Your task to perform on an android device: open app "Reddit" Image 0: 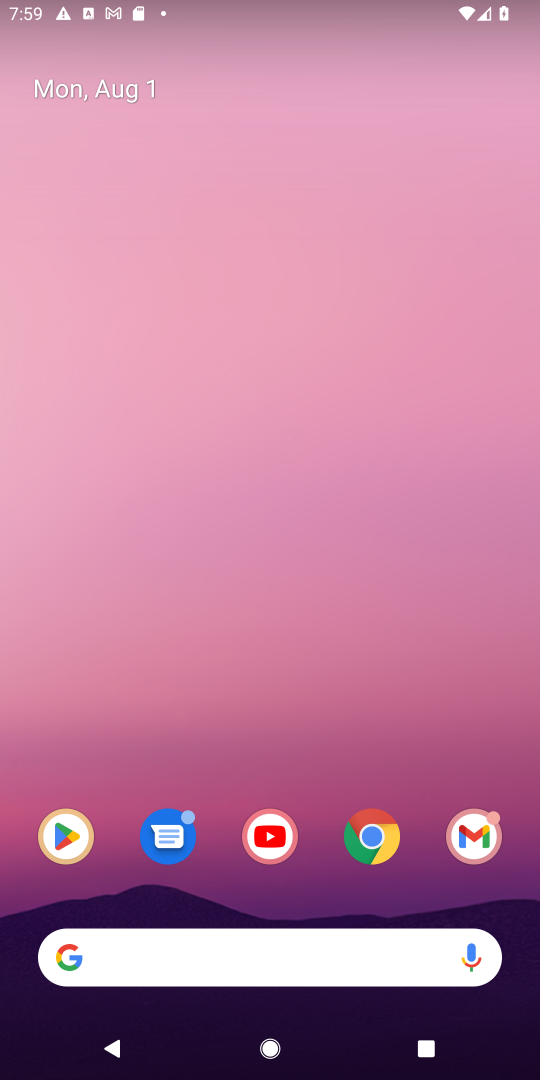
Step 0: press home button
Your task to perform on an android device: open app "Reddit" Image 1: 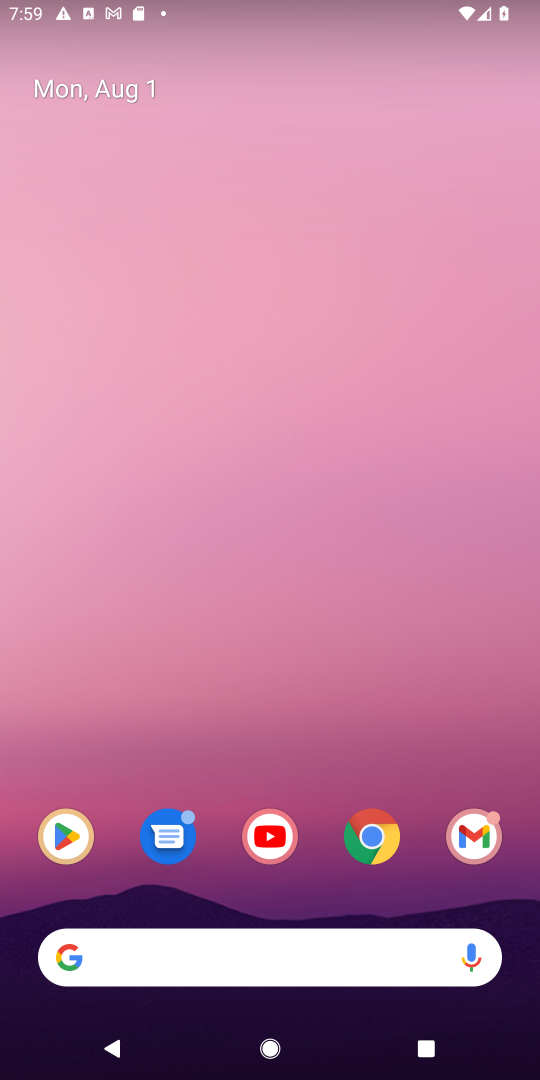
Step 1: click (73, 842)
Your task to perform on an android device: open app "Reddit" Image 2: 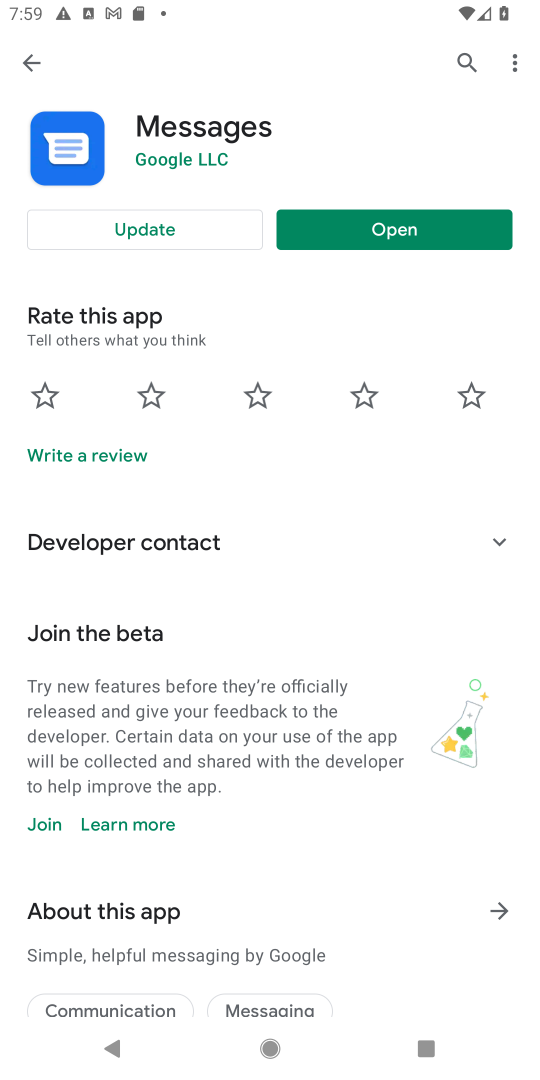
Step 2: click (463, 62)
Your task to perform on an android device: open app "Reddit" Image 3: 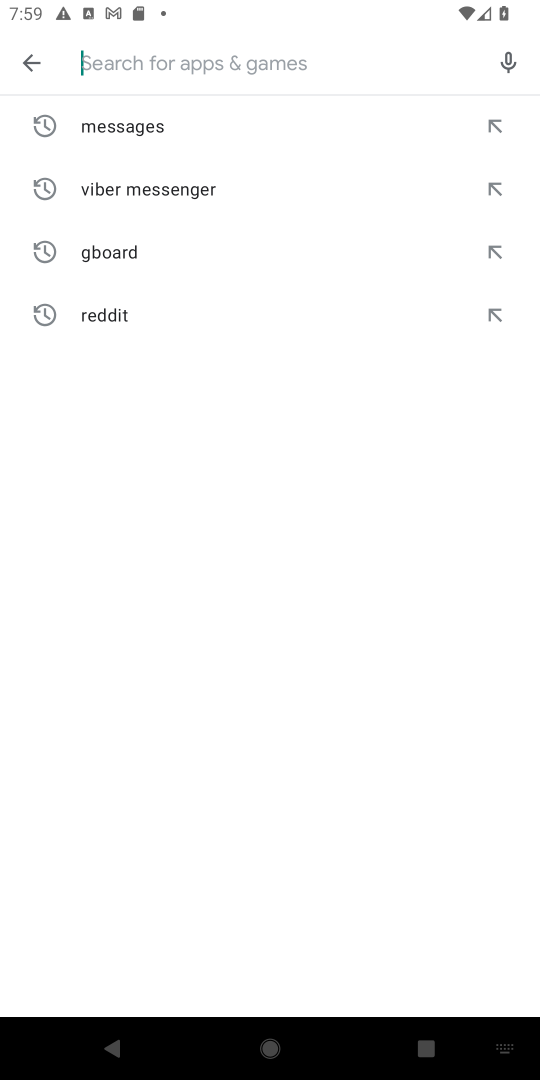
Step 3: type "Reddit"
Your task to perform on an android device: open app "Reddit" Image 4: 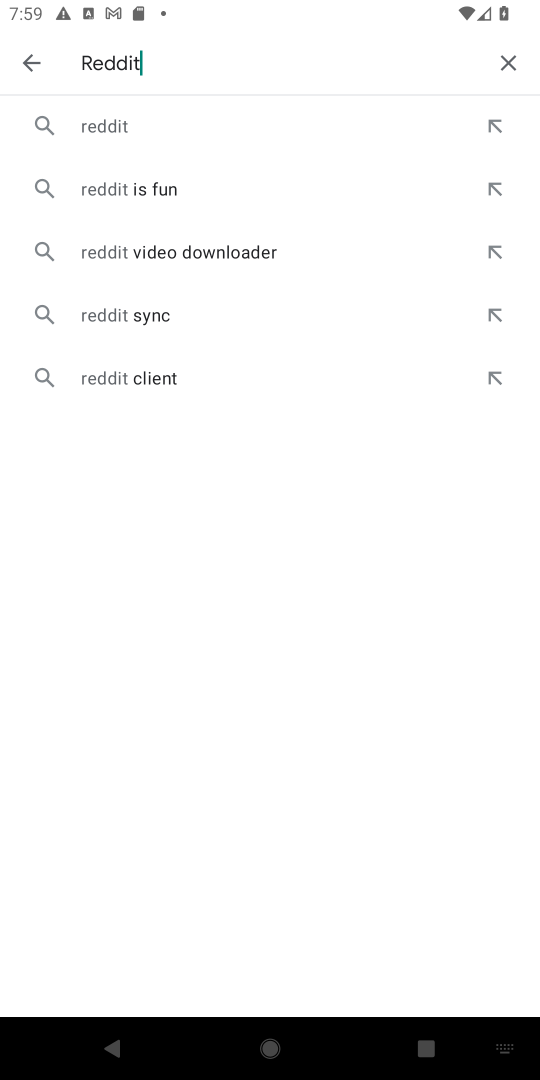
Step 4: click (126, 130)
Your task to perform on an android device: open app "Reddit" Image 5: 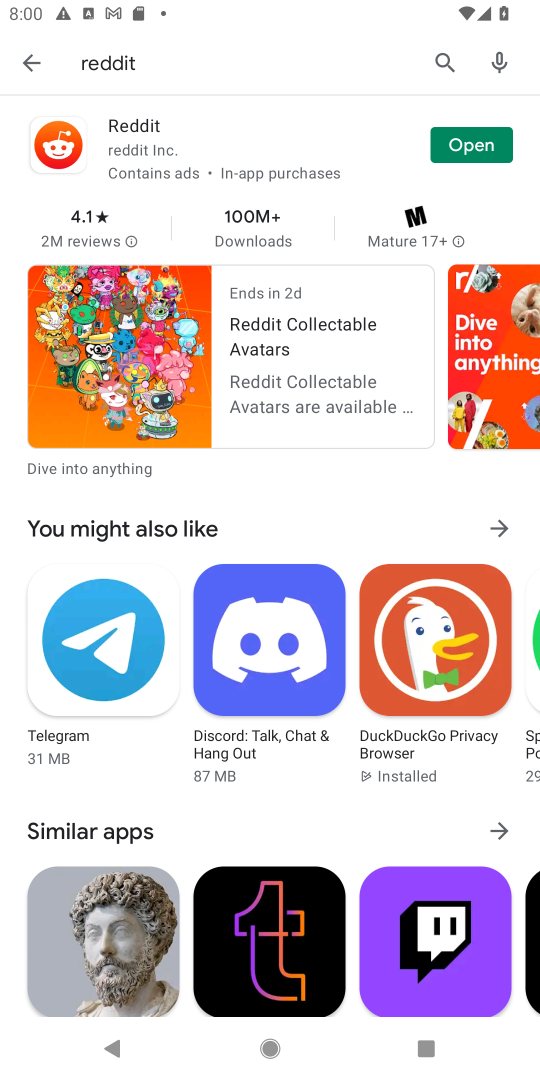
Step 5: click (464, 143)
Your task to perform on an android device: open app "Reddit" Image 6: 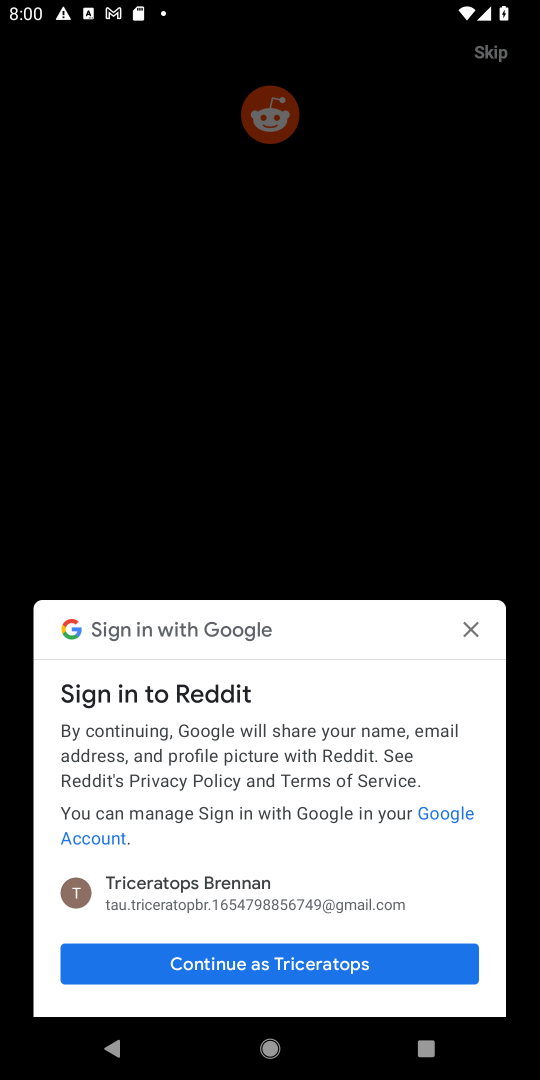
Step 6: task complete